Your task to perform on an android device: Open ESPN.com Image 0: 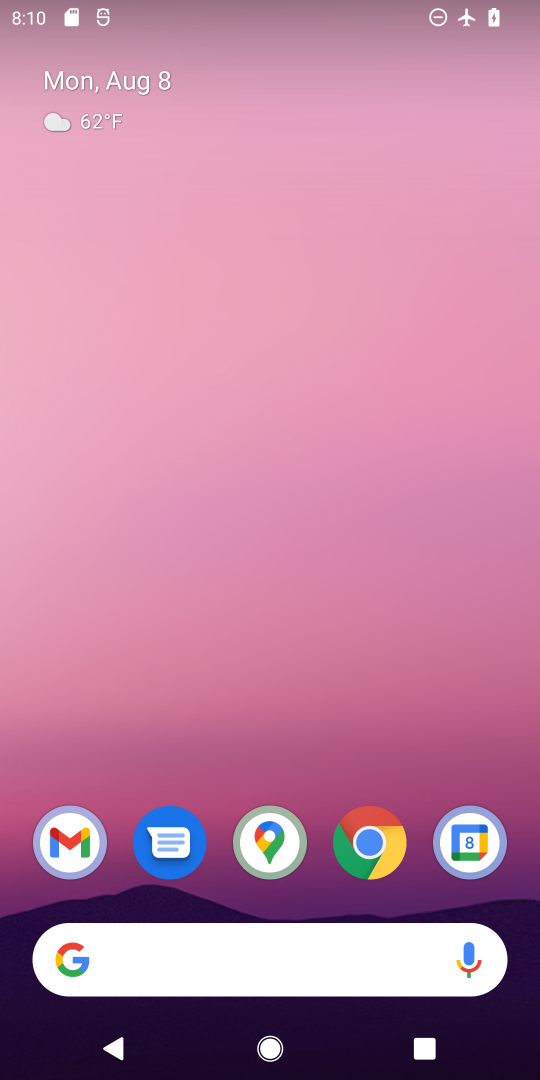
Step 0: drag from (267, 924) to (193, 281)
Your task to perform on an android device: Open ESPN.com Image 1: 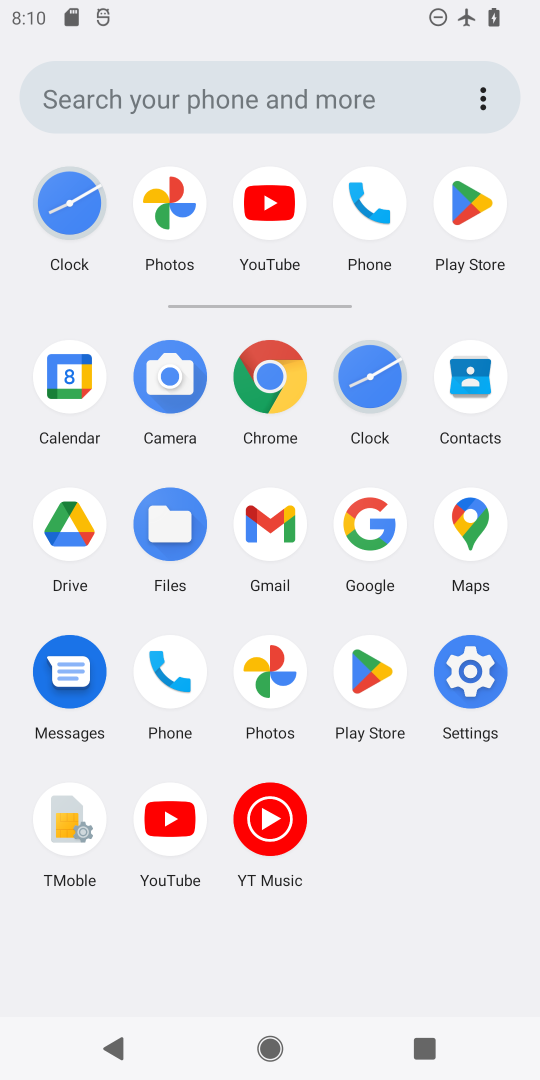
Step 1: click (275, 394)
Your task to perform on an android device: Open ESPN.com Image 2: 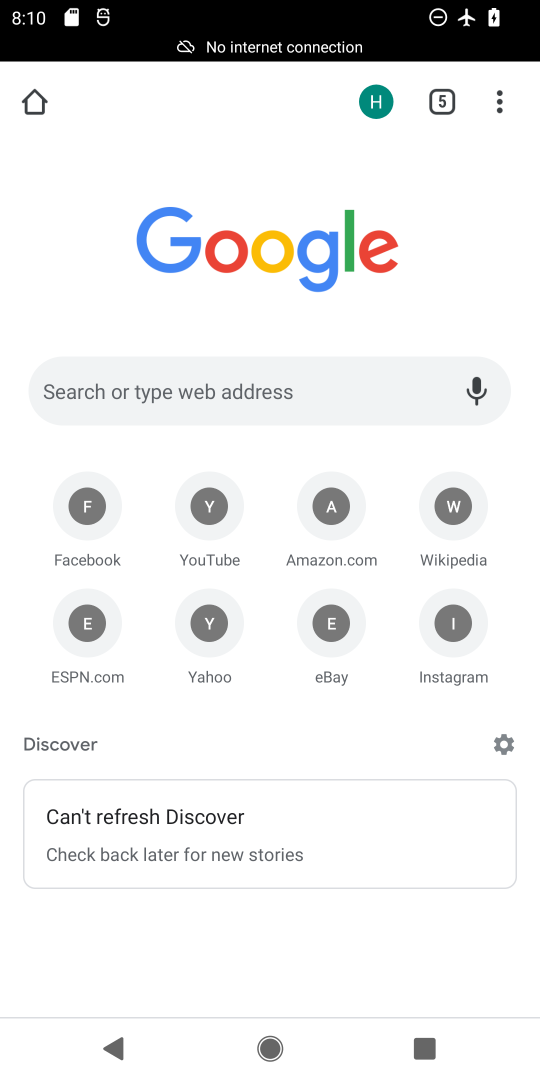
Step 2: click (54, 627)
Your task to perform on an android device: Open ESPN.com Image 3: 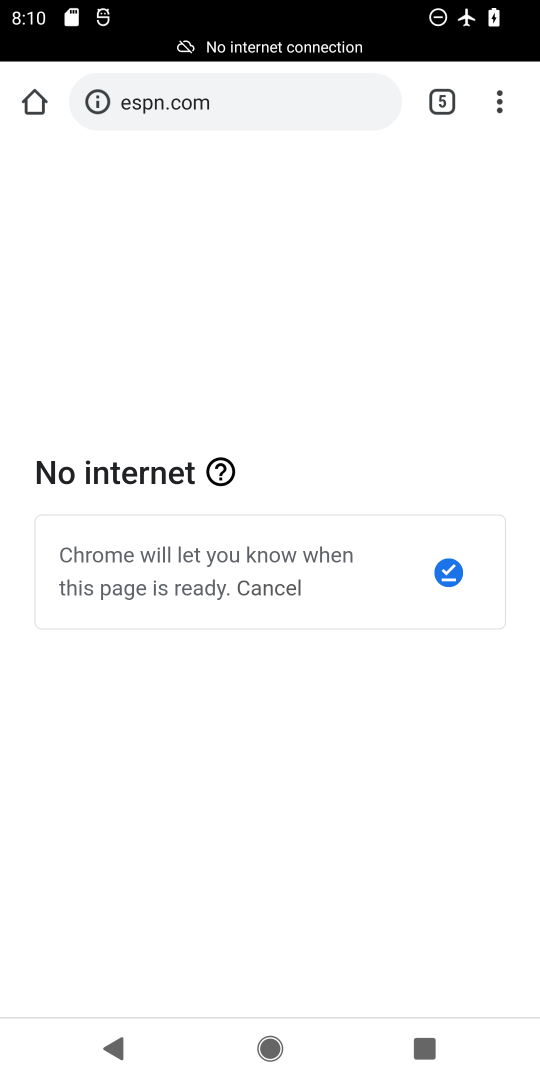
Step 3: task complete